Your task to perform on an android device: change text size in settings app Image 0: 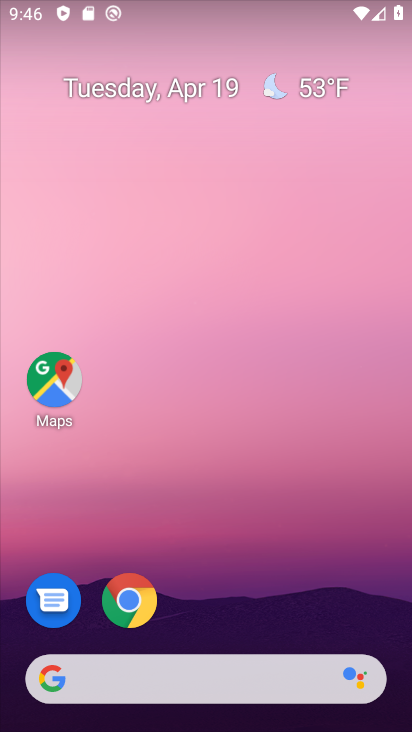
Step 0: drag from (222, 630) to (319, 54)
Your task to perform on an android device: change text size in settings app Image 1: 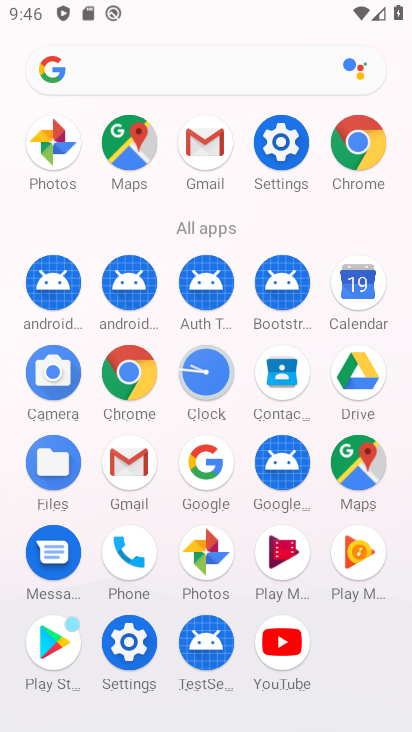
Step 1: click (275, 137)
Your task to perform on an android device: change text size in settings app Image 2: 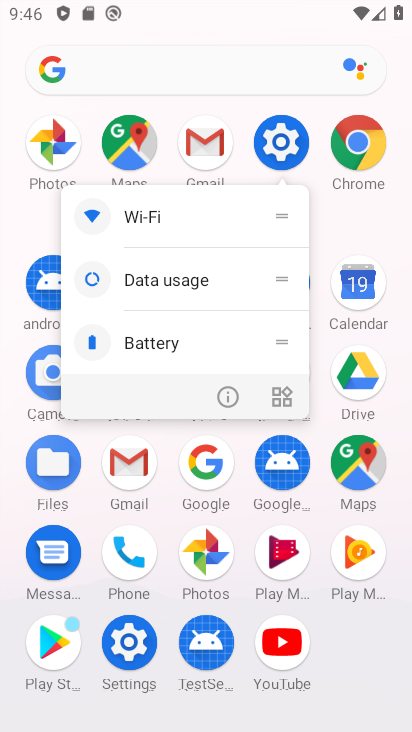
Step 2: click (274, 151)
Your task to perform on an android device: change text size in settings app Image 3: 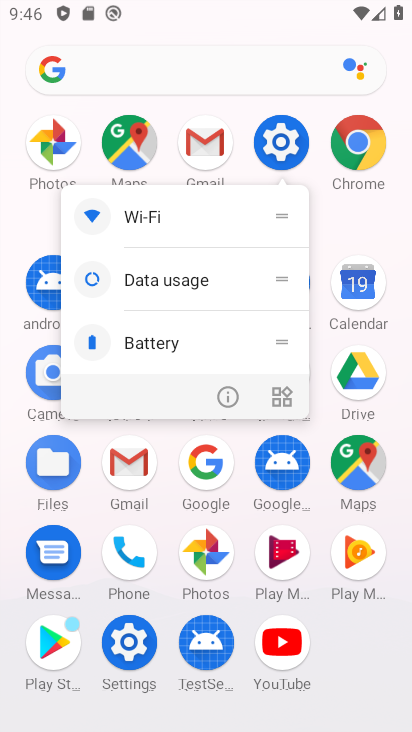
Step 3: click (274, 151)
Your task to perform on an android device: change text size in settings app Image 4: 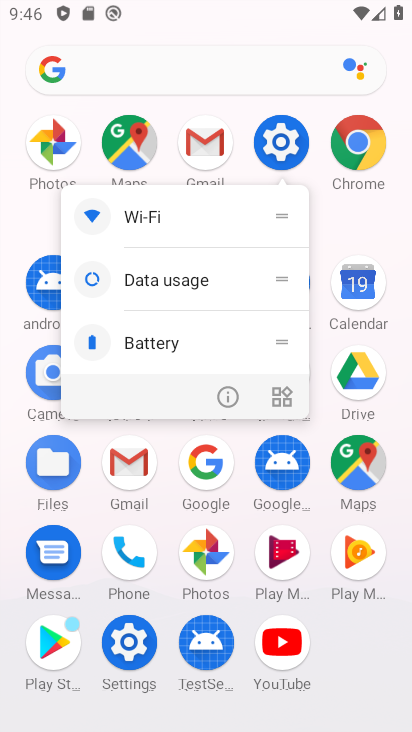
Step 4: click (281, 159)
Your task to perform on an android device: change text size in settings app Image 5: 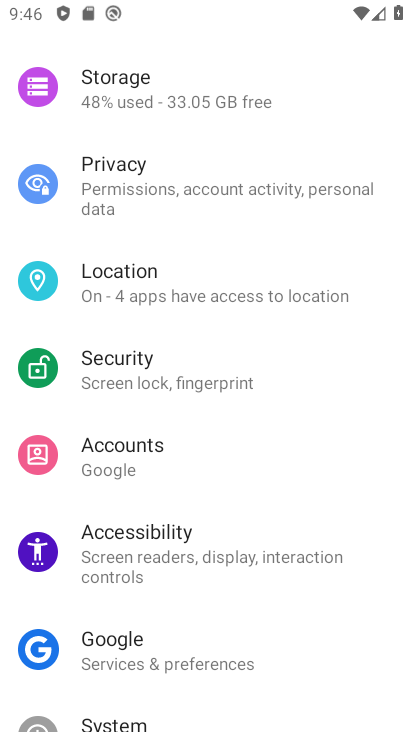
Step 5: drag from (259, 237) to (239, 529)
Your task to perform on an android device: change text size in settings app Image 6: 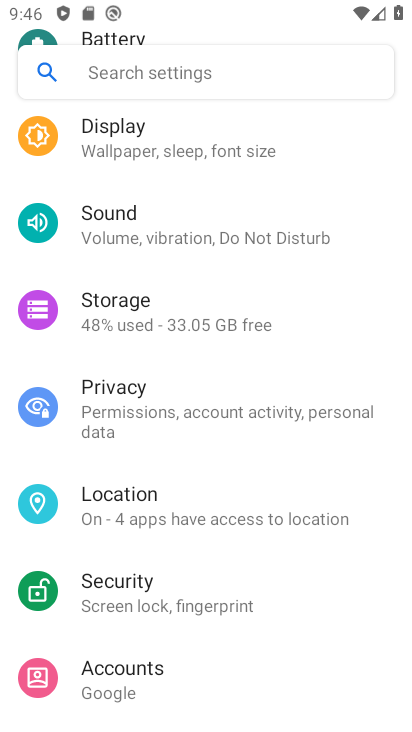
Step 6: click (285, 152)
Your task to perform on an android device: change text size in settings app Image 7: 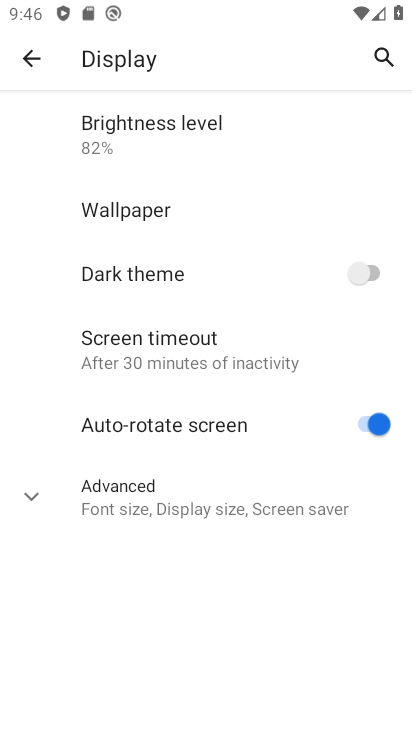
Step 7: click (259, 507)
Your task to perform on an android device: change text size in settings app Image 8: 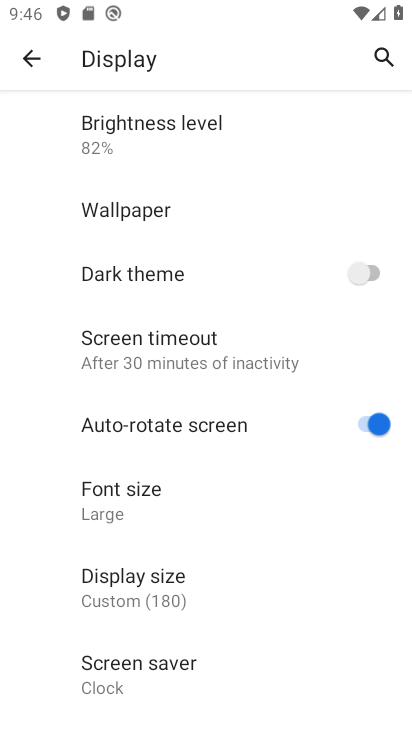
Step 8: drag from (229, 522) to (266, 388)
Your task to perform on an android device: change text size in settings app Image 9: 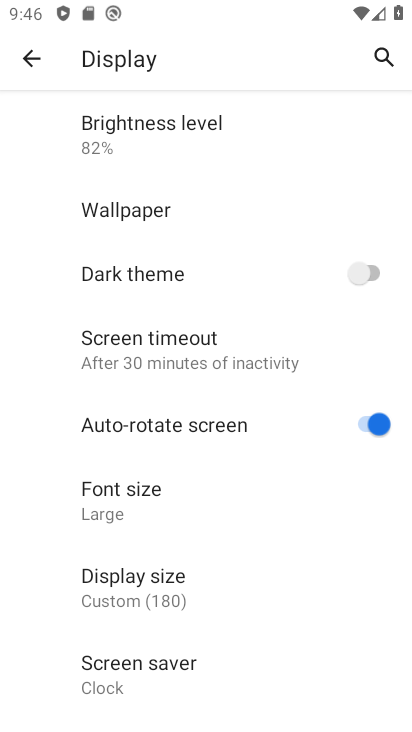
Step 9: click (172, 502)
Your task to perform on an android device: change text size in settings app Image 10: 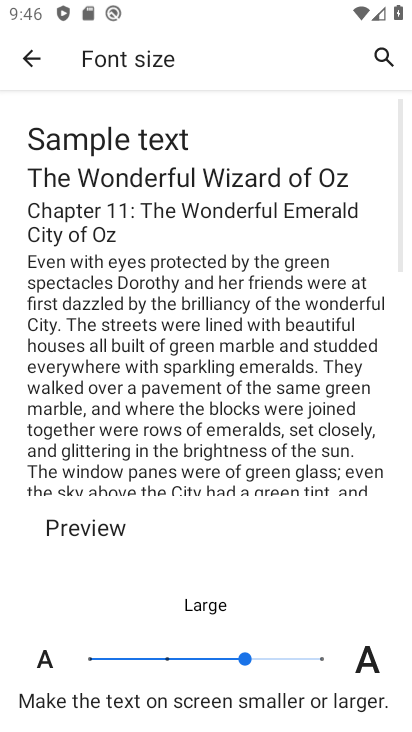
Step 10: task complete